Your task to perform on an android device: Open Reddit.com Image 0: 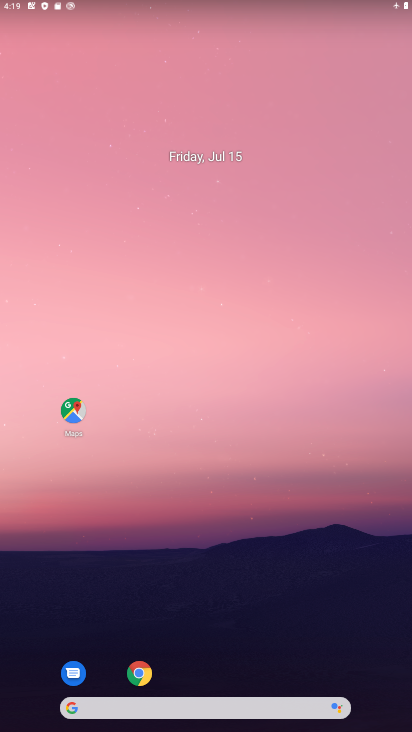
Step 0: click (242, 198)
Your task to perform on an android device: Open Reddit.com Image 1: 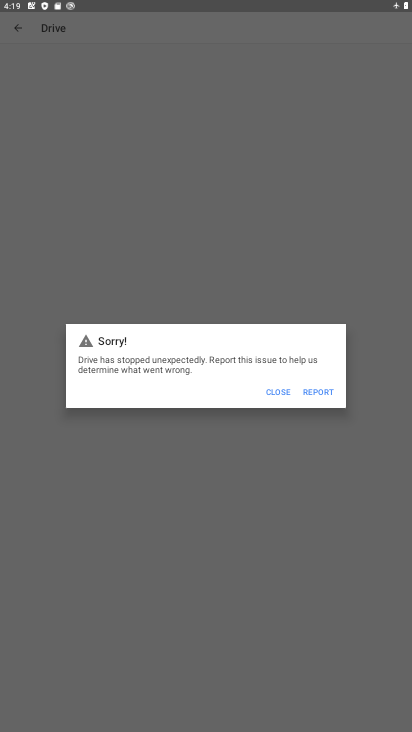
Step 1: press home button
Your task to perform on an android device: Open Reddit.com Image 2: 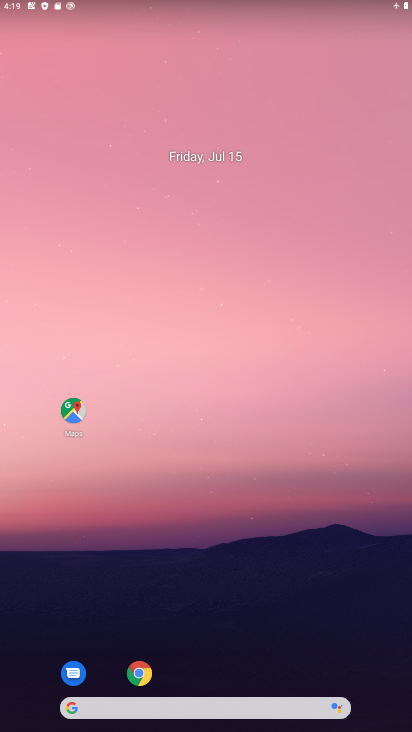
Step 2: drag from (248, 571) to (253, 181)
Your task to perform on an android device: Open Reddit.com Image 3: 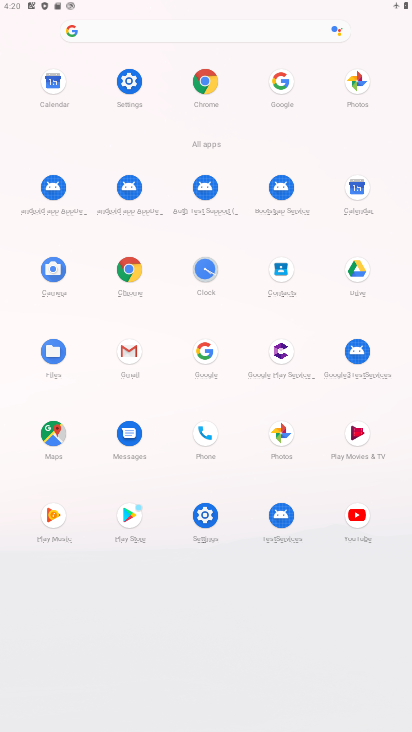
Step 3: click (214, 77)
Your task to perform on an android device: Open Reddit.com Image 4: 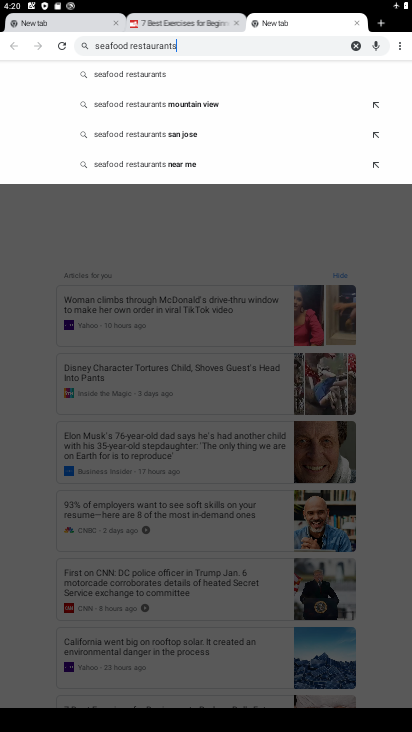
Step 4: click (352, 44)
Your task to perform on an android device: Open Reddit.com Image 5: 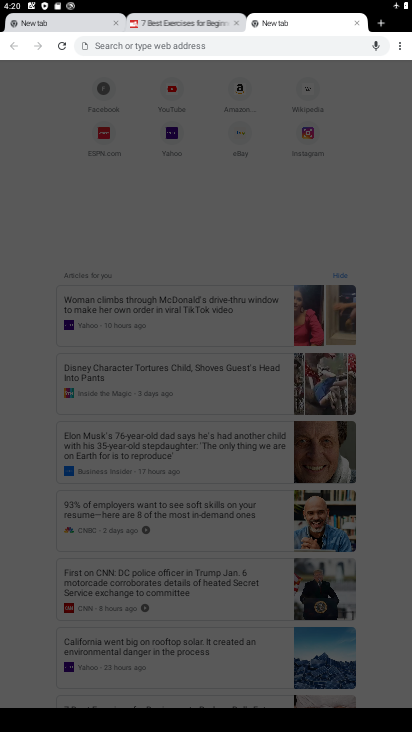
Step 5: click (207, 37)
Your task to perform on an android device: Open Reddit.com Image 6: 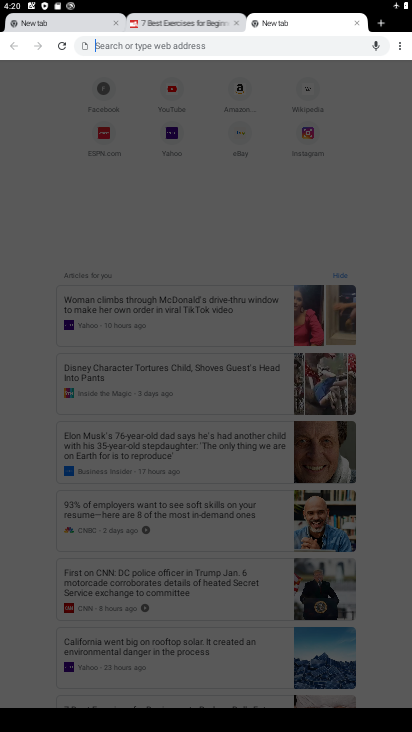
Step 6: type " Reddit.com "
Your task to perform on an android device: Open Reddit.com Image 7: 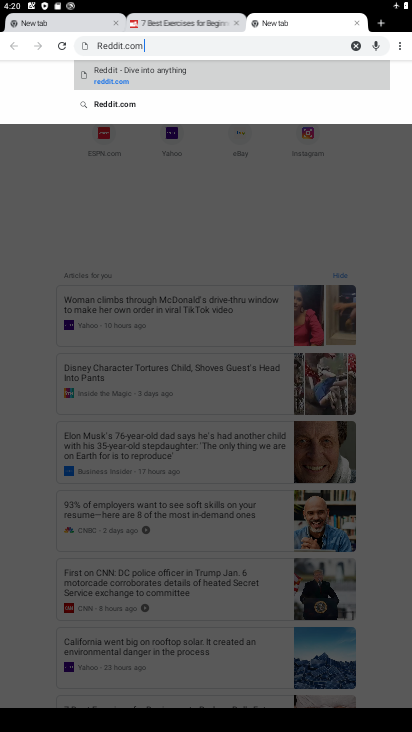
Step 7: click (177, 75)
Your task to perform on an android device: Open Reddit.com Image 8: 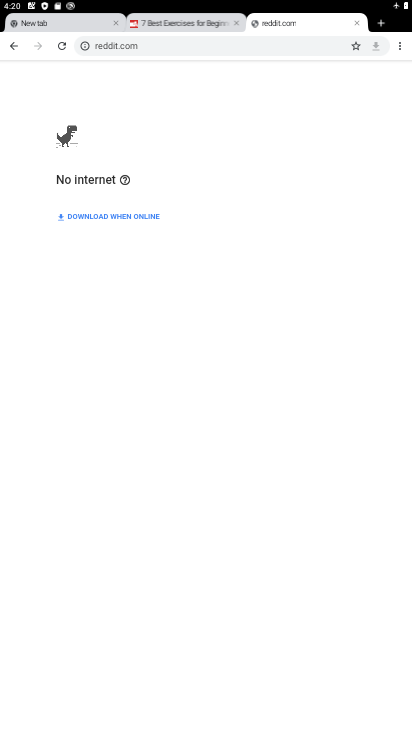
Step 8: task complete